Your task to perform on an android device: Check the weather Image 0: 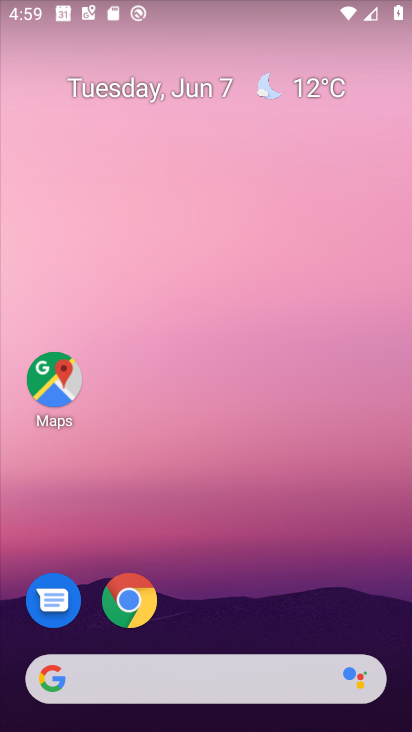
Step 0: drag from (244, 462) to (244, 112)
Your task to perform on an android device: Check the weather Image 1: 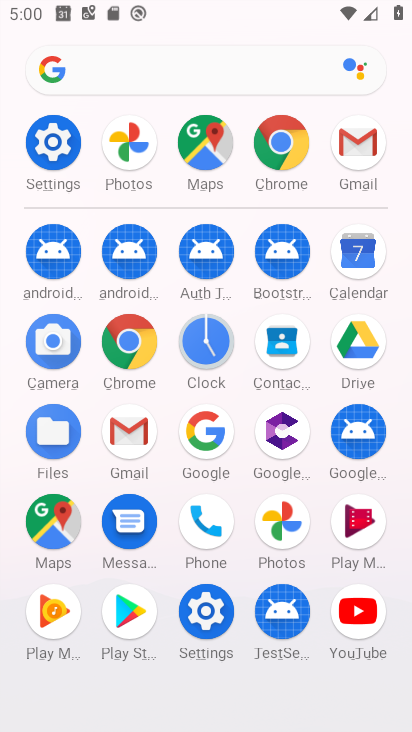
Step 1: click (284, 144)
Your task to perform on an android device: Check the weather Image 2: 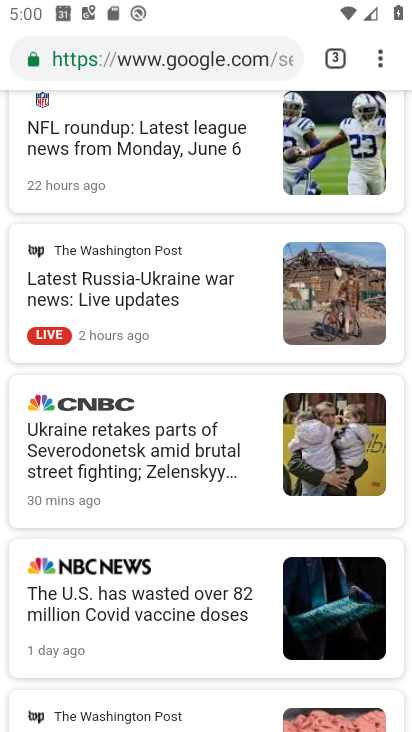
Step 2: click (184, 51)
Your task to perform on an android device: Check the weather Image 3: 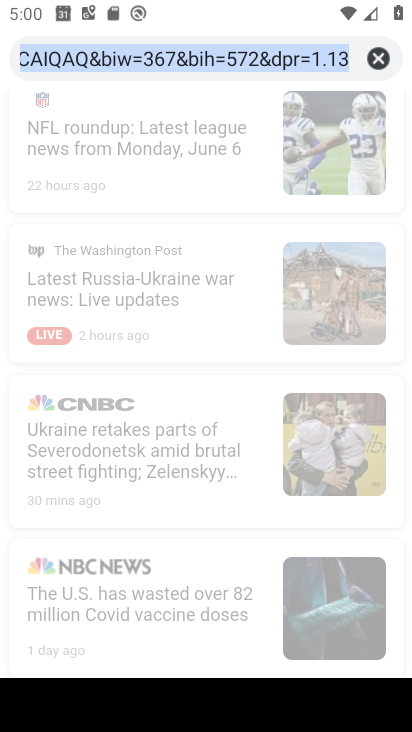
Step 3: type "weather"
Your task to perform on an android device: Check the weather Image 4: 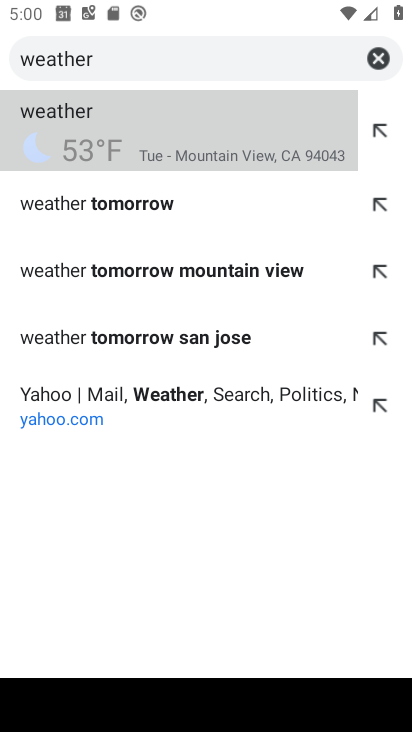
Step 4: click (165, 141)
Your task to perform on an android device: Check the weather Image 5: 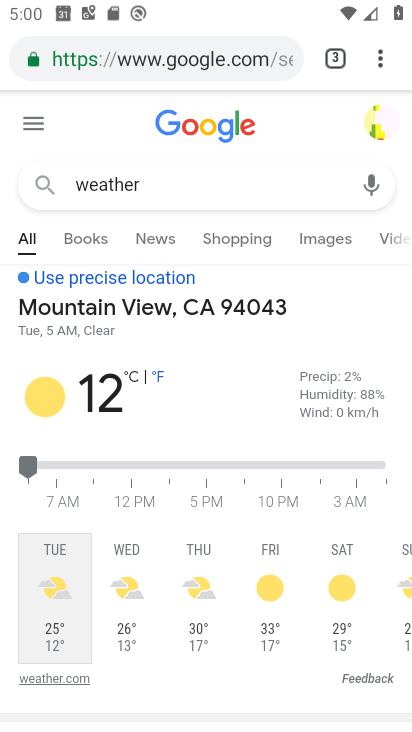
Step 5: task complete